Your task to perform on an android device: Is it going to rain tomorrow? Image 0: 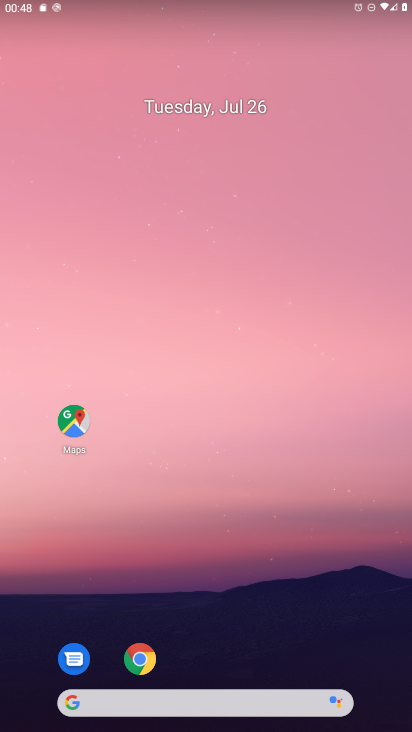
Step 0: drag from (234, 607) to (156, 36)
Your task to perform on an android device: Is it going to rain tomorrow? Image 1: 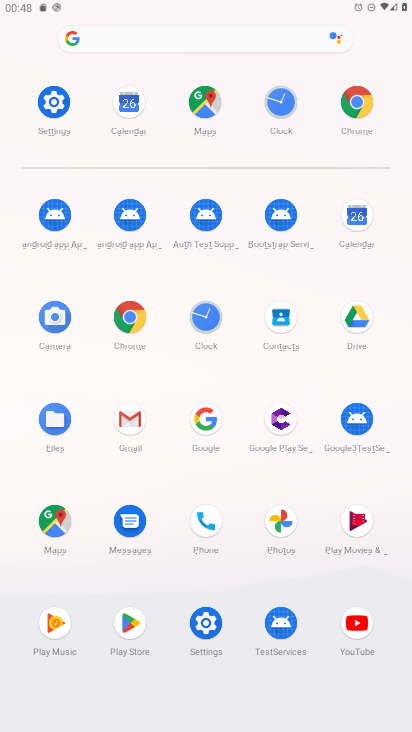
Step 1: click (132, 310)
Your task to perform on an android device: Is it going to rain tomorrow? Image 2: 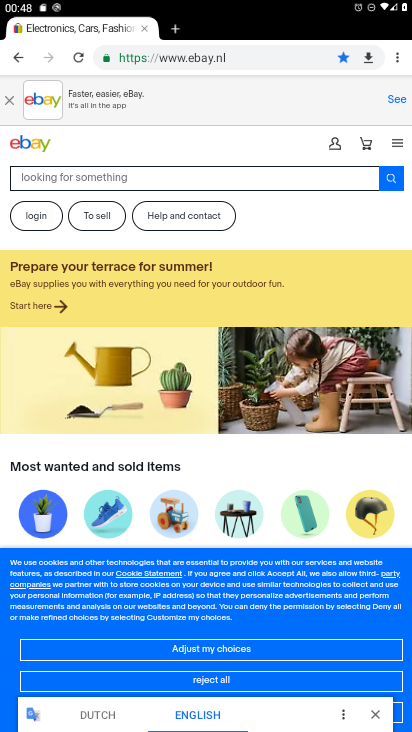
Step 2: click (190, 55)
Your task to perform on an android device: Is it going to rain tomorrow? Image 3: 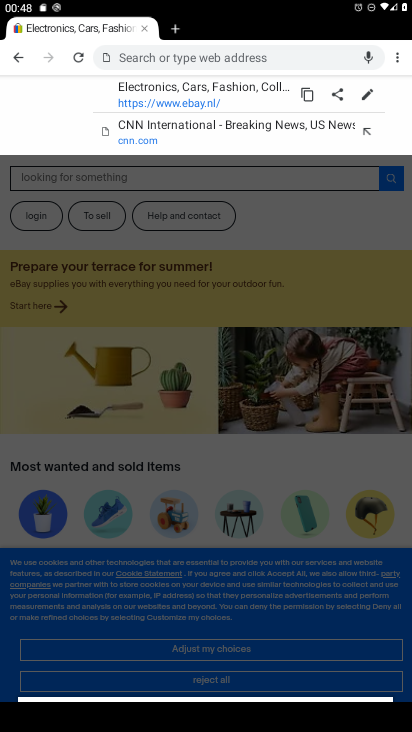
Step 3: type "Is it going to rain tomorrow?"
Your task to perform on an android device: Is it going to rain tomorrow? Image 4: 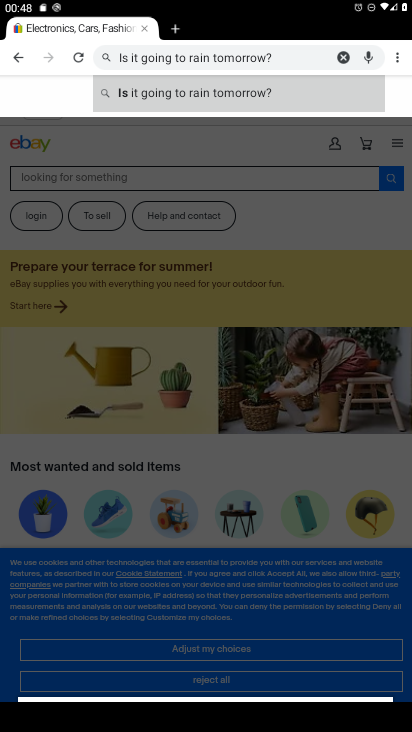
Step 4: click (149, 92)
Your task to perform on an android device: Is it going to rain tomorrow? Image 5: 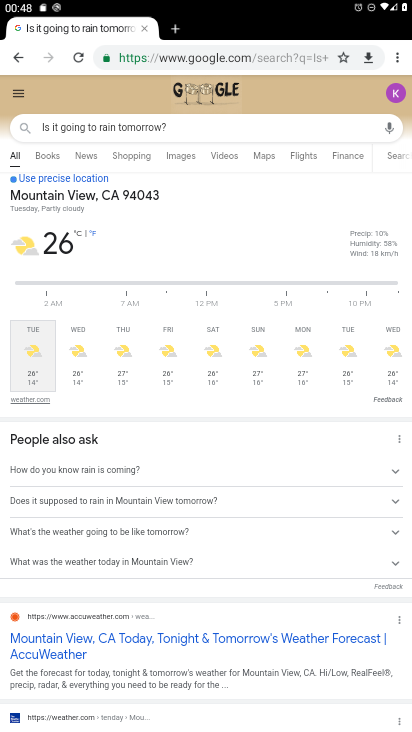
Step 5: task complete